Your task to perform on an android device: change the clock display to show seconds Image 0: 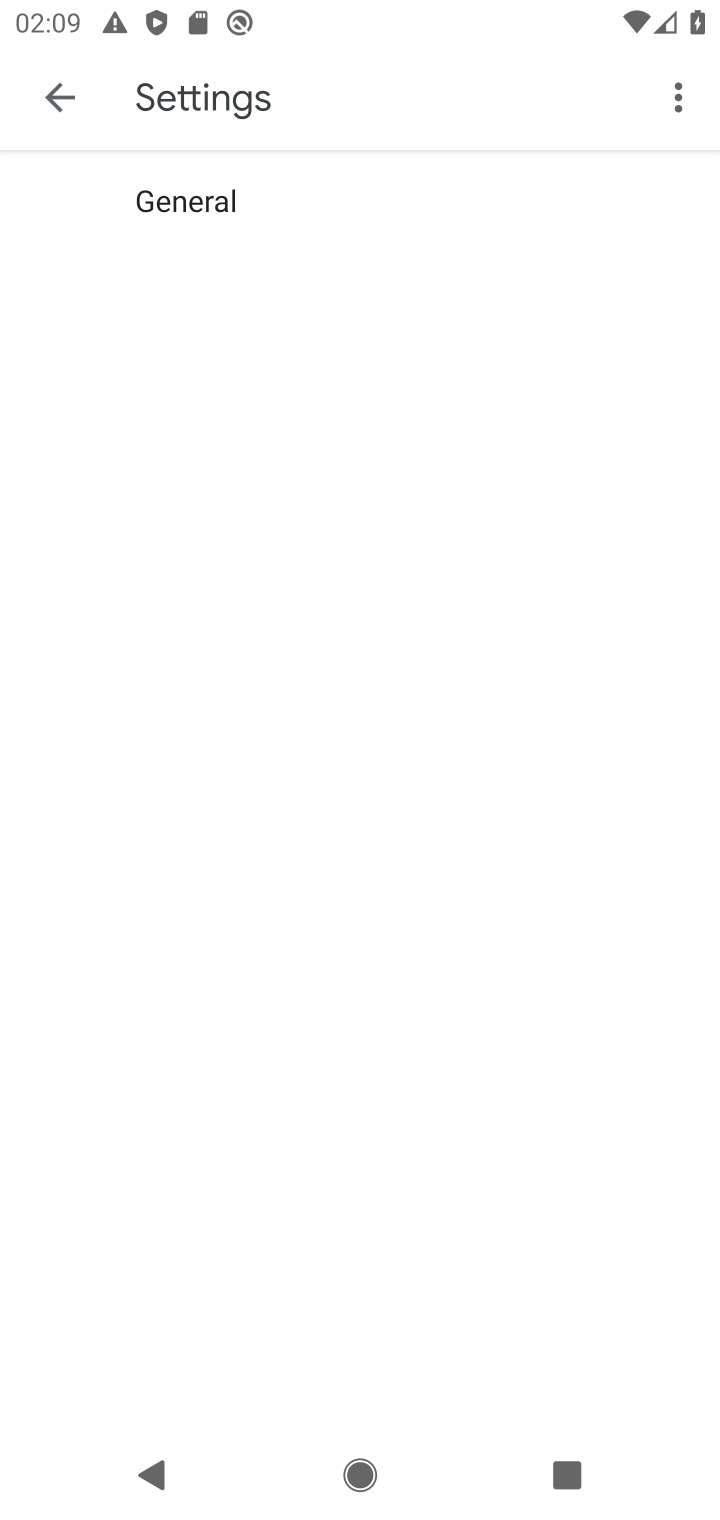
Step 0: press home button
Your task to perform on an android device: change the clock display to show seconds Image 1: 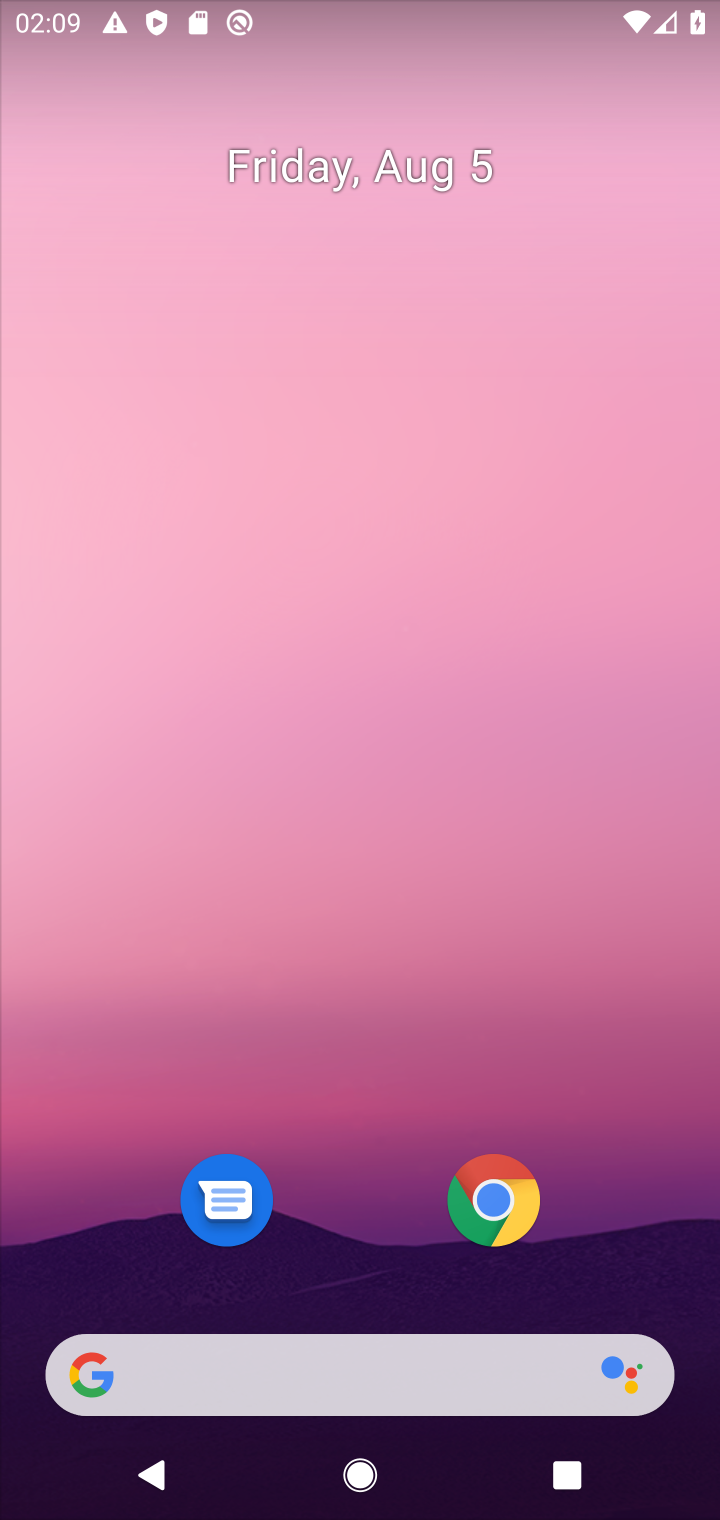
Step 1: drag from (287, 1207) to (254, 326)
Your task to perform on an android device: change the clock display to show seconds Image 2: 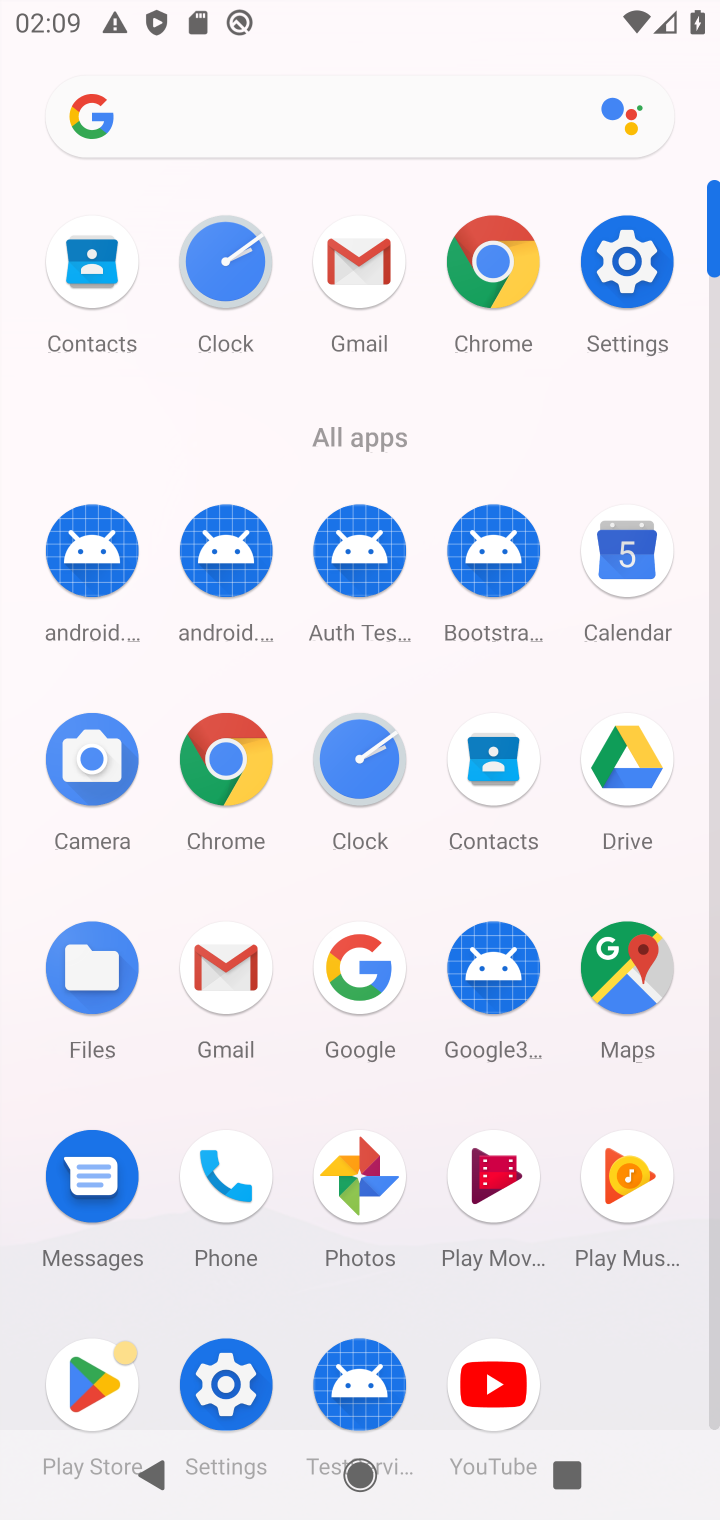
Step 2: click (228, 294)
Your task to perform on an android device: change the clock display to show seconds Image 3: 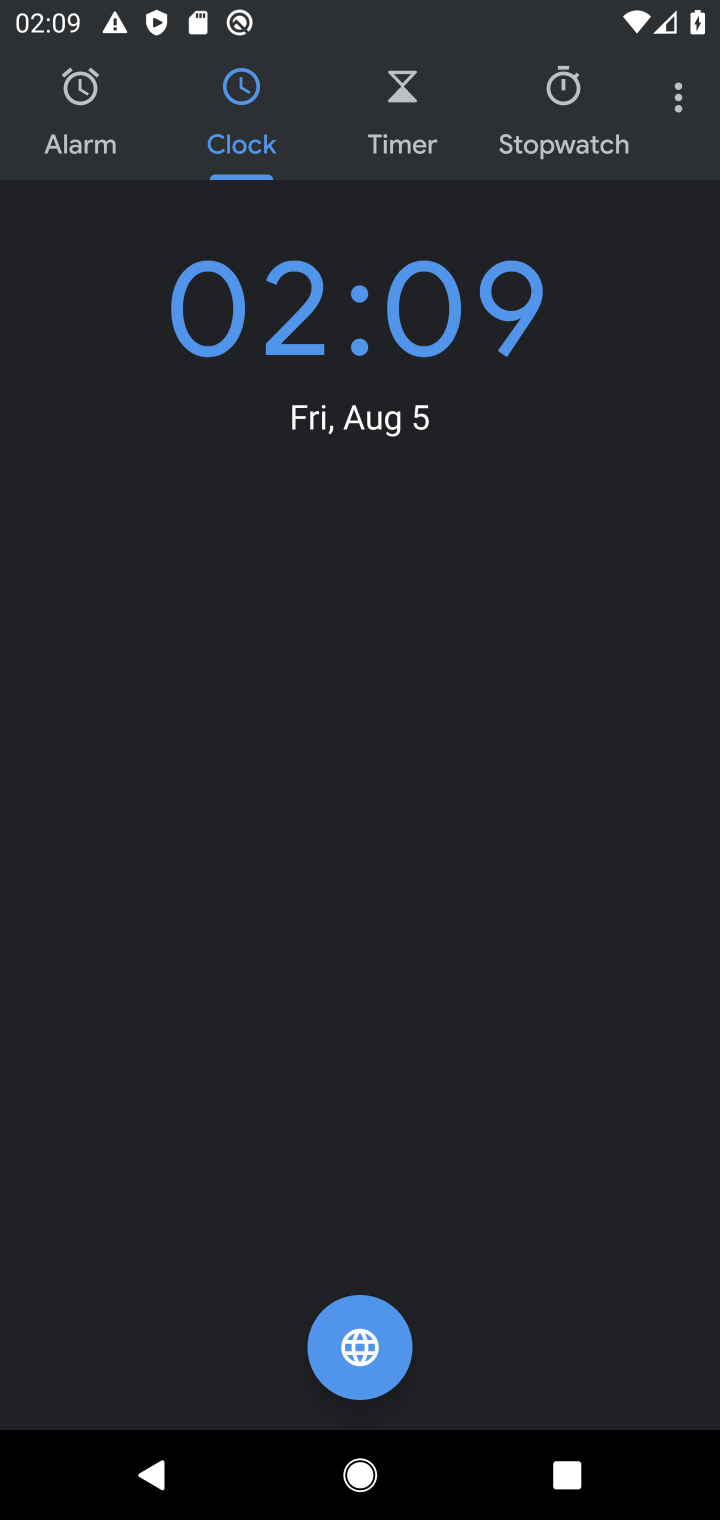
Step 3: click (661, 108)
Your task to perform on an android device: change the clock display to show seconds Image 4: 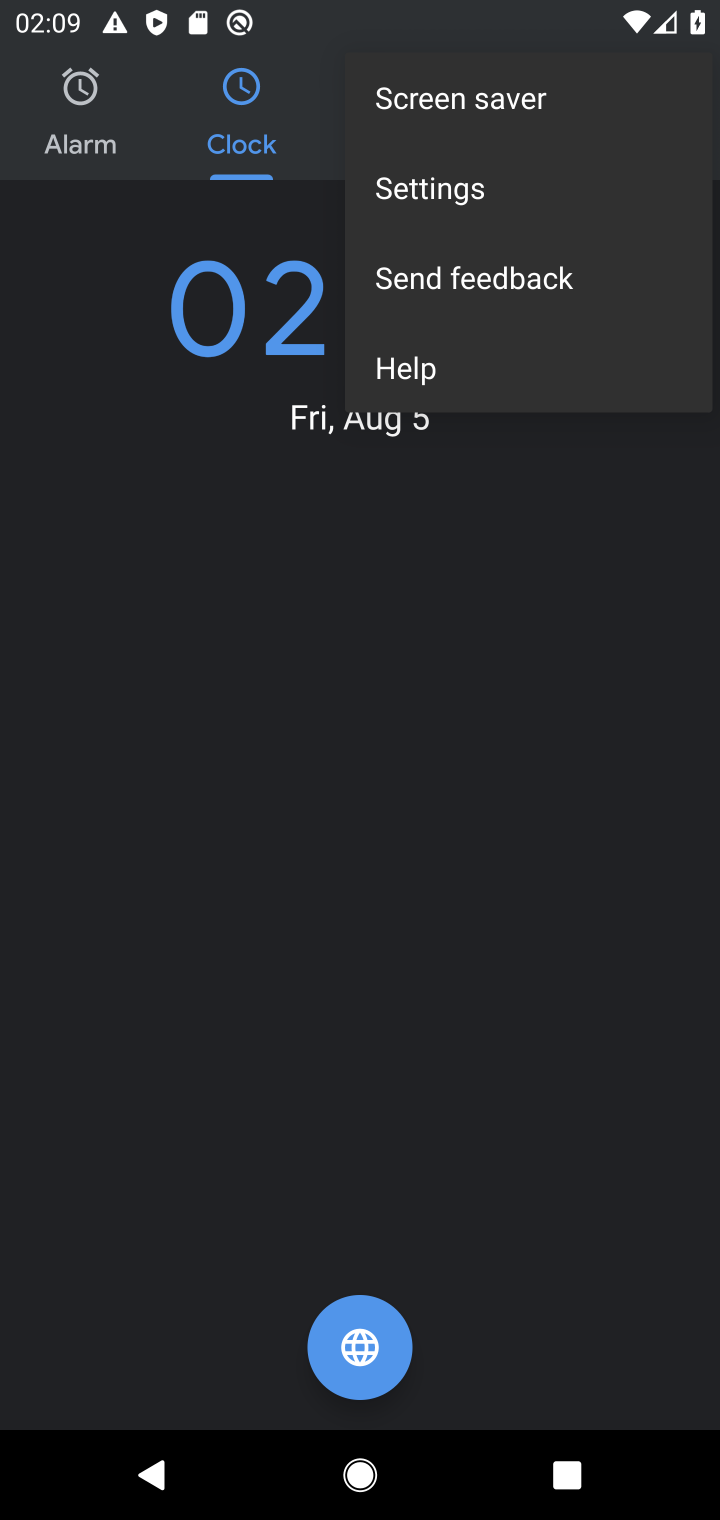
Step 4: click (465, 188)
Your task to perform on an android device: change the clock display to show seconds Image 5: 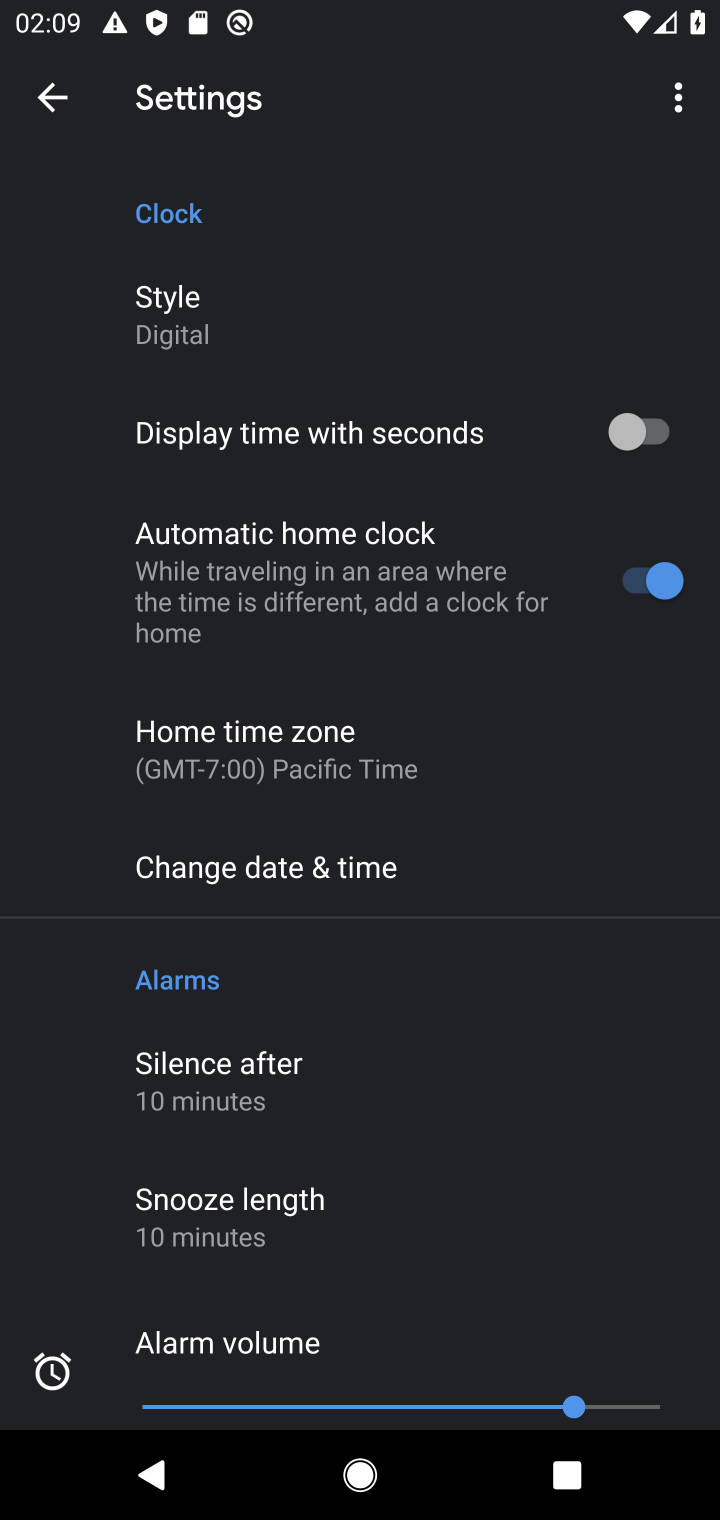
Step 5: click (652, 443)
Your task to perform on an android device: change the clock display to show seconds Image 6: 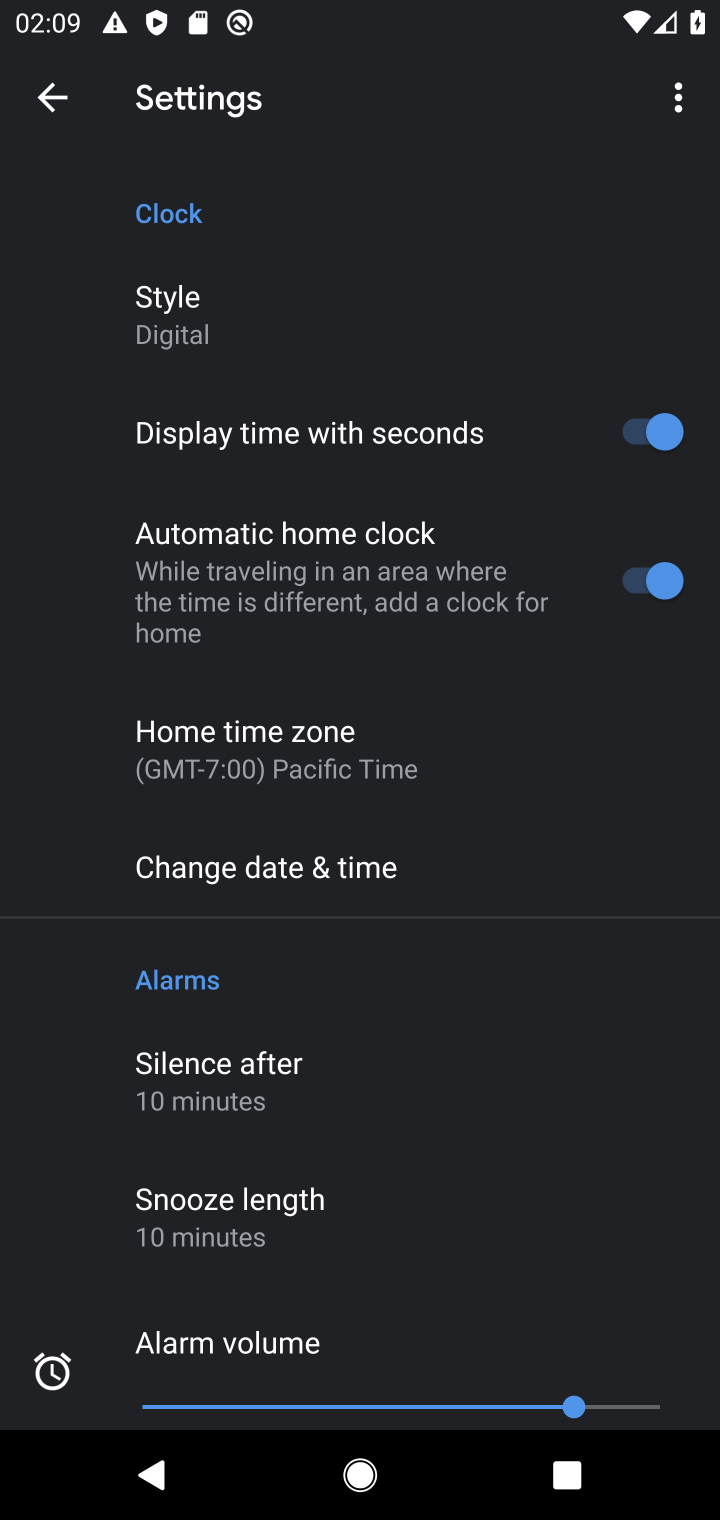
Step 6: task complete